Your task to perform on an android device: open device folders in google photos Image 0: 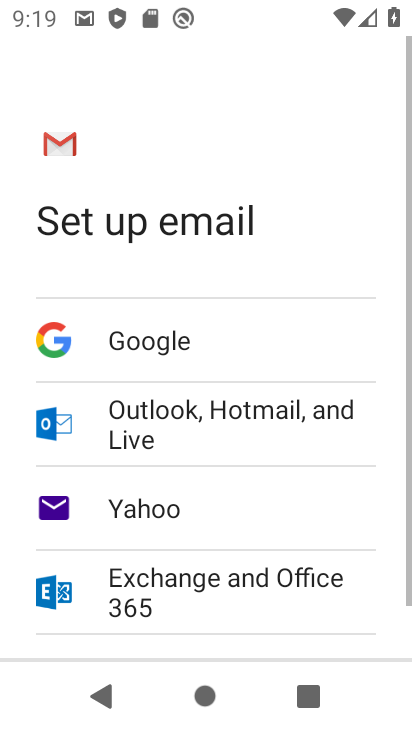
Step 0: press back button
Your task to perform on an android device: open device folders in google photos Image 1: 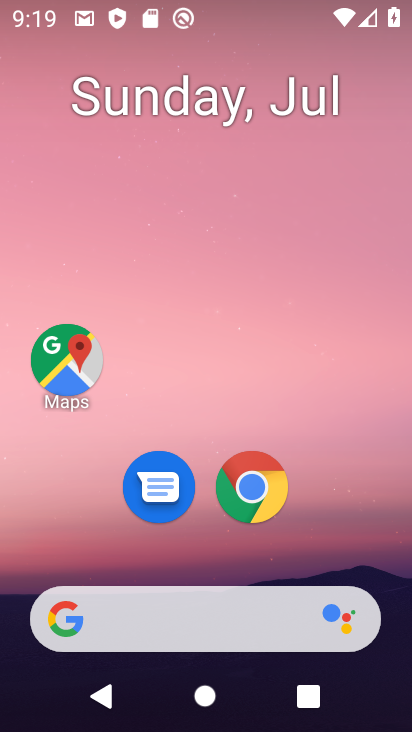
Step 1: drag from (179, 524) to (362, 13)
Your task to perform on an android device: open device folders in google photos Image 2: 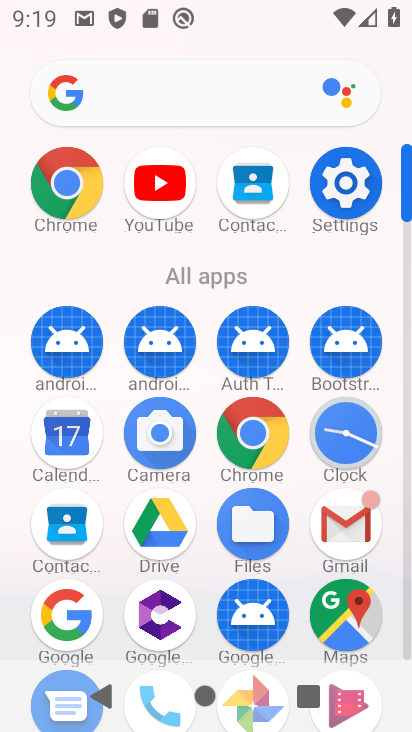
Step 2: drag from (212, 602) to (267, 105)
Your task to perform on an android device: open device folders in google photos Image 3: 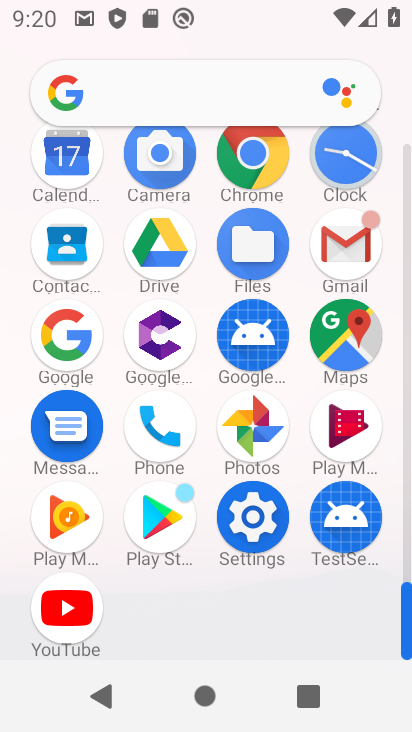
Step 3: click (241, 429)
Your task to perform on an android device: open device folders in google photos Image 4: 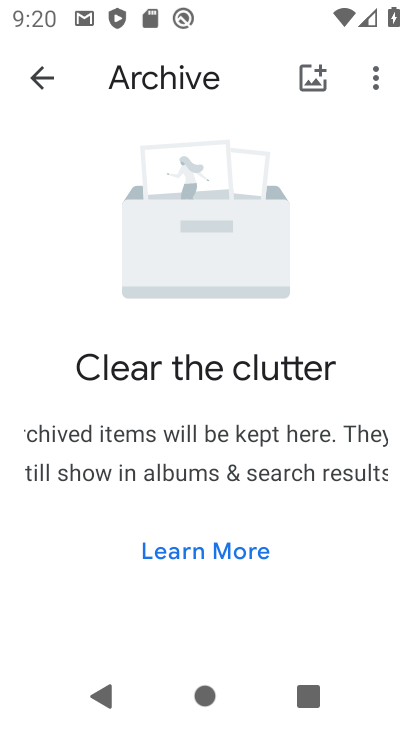
Step 4: click (49, 67)
Your task to perform on an android device: open device folders in google photos Image 5: 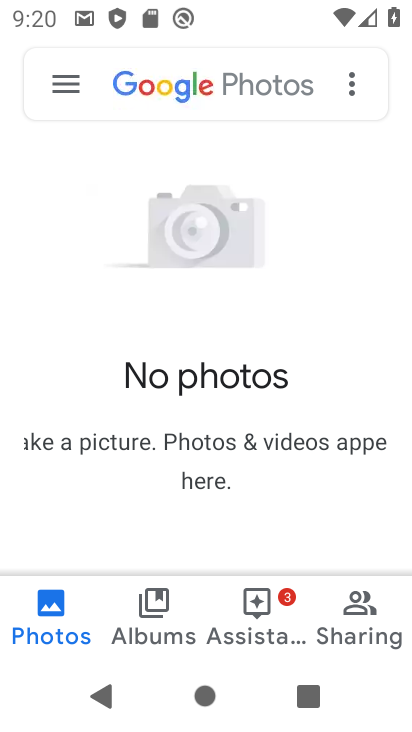
Step 5: click (54, 84)
Your task to perform on an android device: open device folders in google photos Image 6: 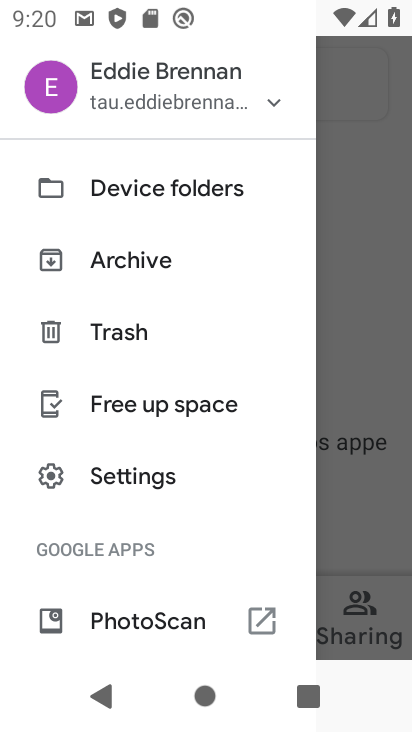
Step 6: click (155, 194)
Your task to perform on an android device: open device folders in google photos Image 7: 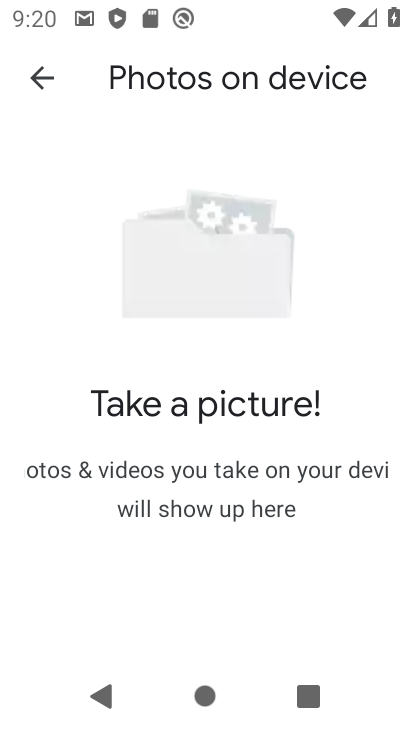
Step 7: task complete